Your task to perform on an android device: turn off sleep mode Image 0: 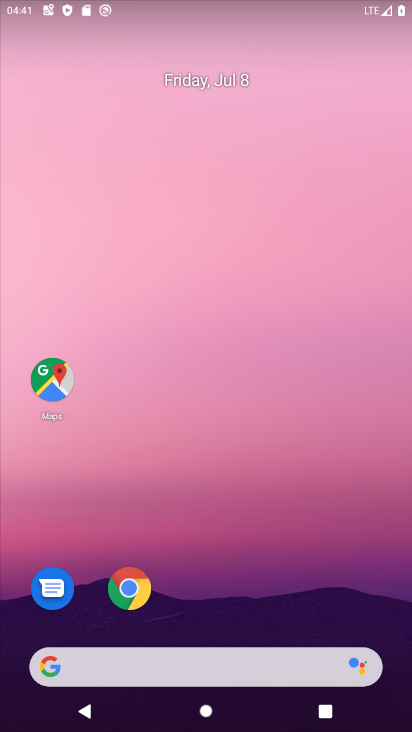
Step 0: drag from (212, 576) to (218, 35)
Your task to perform on an android device: turn off sleep mode Image 1: 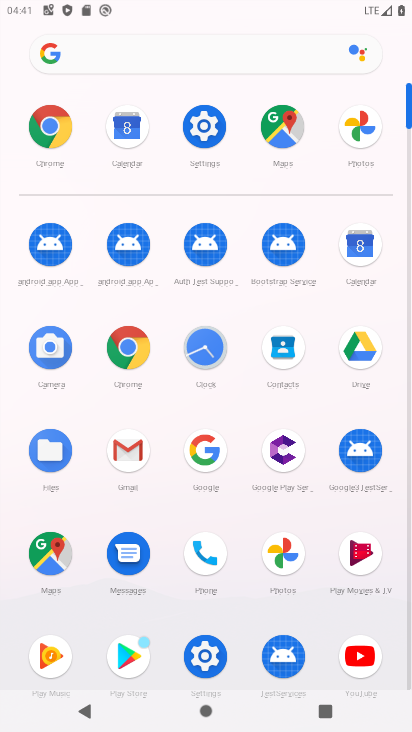
Step 1: click (208, 122)
Your task to perform on an android device: turn off sleep mode Image 2: 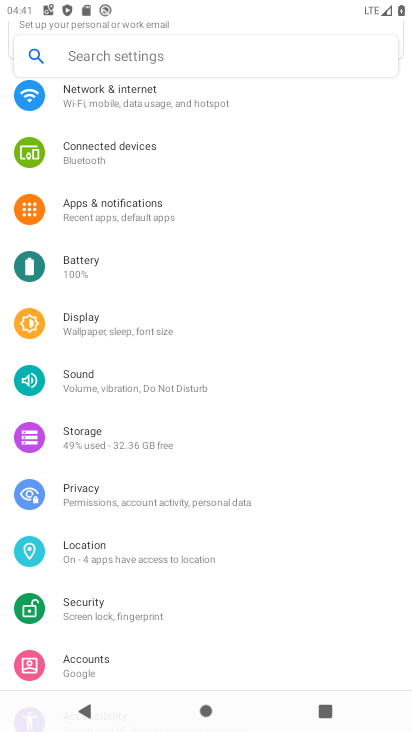
Step 2: task complete